Your task to perform on an android device: Open Reddit.com Image 0: 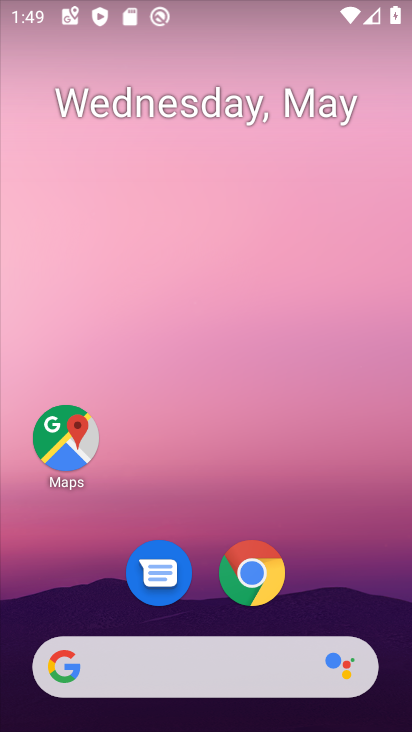
Step 0: click (249, 572)
Your task to perform on an android device: Open Reddit.com Image 1: 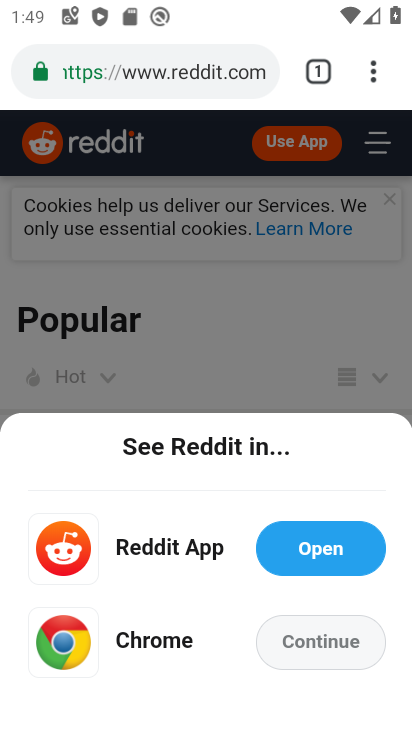
Step 1: task complete